Your task to perform on an android device: Open Youtube and go to "Your channel" Image 0: 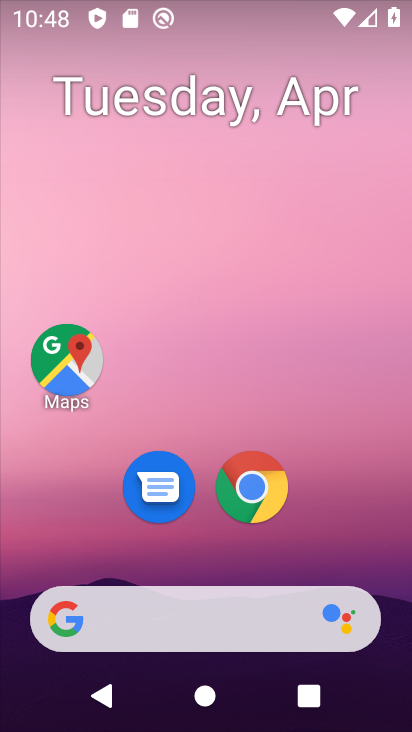
Step 0: drag from (163, 646) to (54, 51)
Your task to perform on an android device: Open Youtube and go to "Your channel" Image 1: 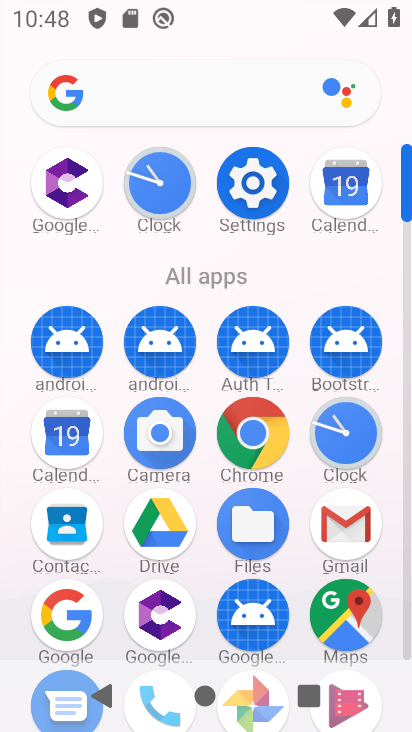
Step 1: drag from (299, 578) to (241, 32)
Your task to perform on an android device: Open Youtube and go to "Your channel" Image 2: 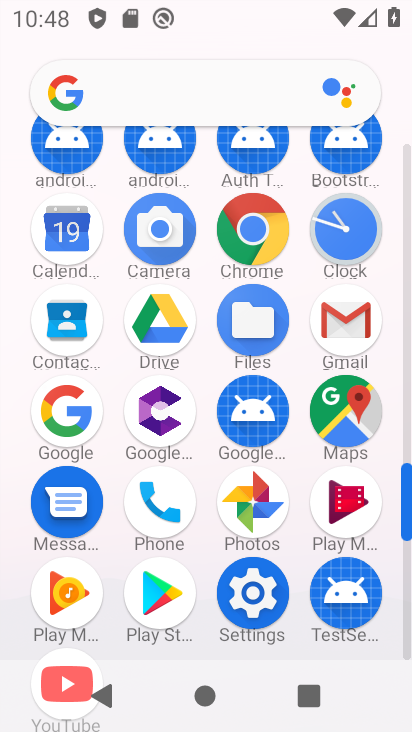
Step 2: drag from (107, 630) to (70, 202)
Your task to perform on an android device: Open Youtube and go to "Your channel" Image 3: 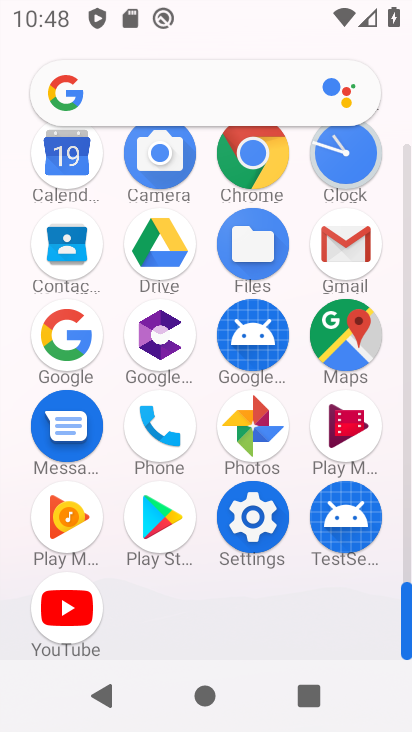
Step 3: click (81, 622)
Your task to perform on an android device: Open Youtube and go to "Your channel" Image 4: 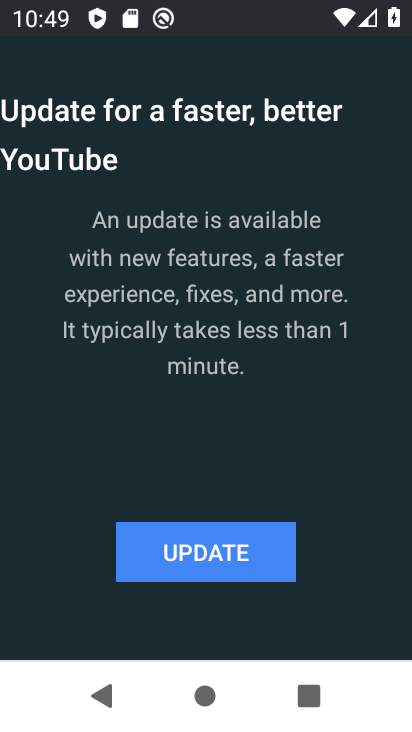
Step 4: click (268, 569)
Your task to perform on an android device: Open Youtube and go to "Your channel" Image 5: 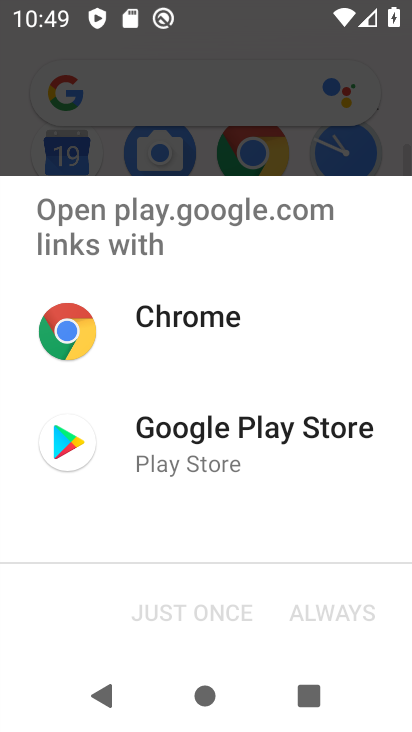
Step 5: click (233, 445)
Your task to perform on an android device: Open Youtube and go to "Your channel" Image 6: 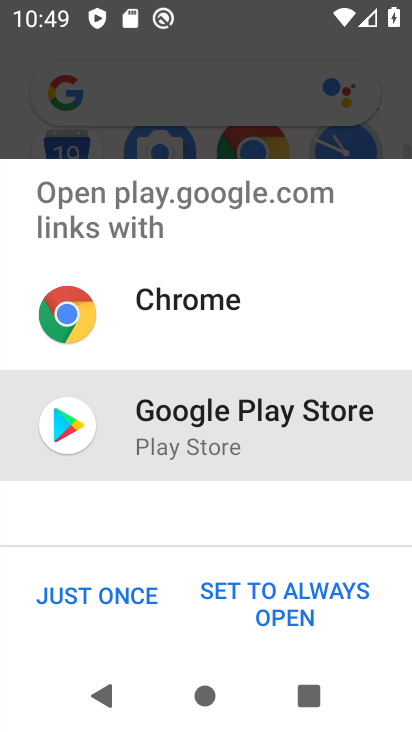
Step 6: click (142, 598)
Your task to perform on an android device: Open Youtube and go to "Your channel" Image 7: 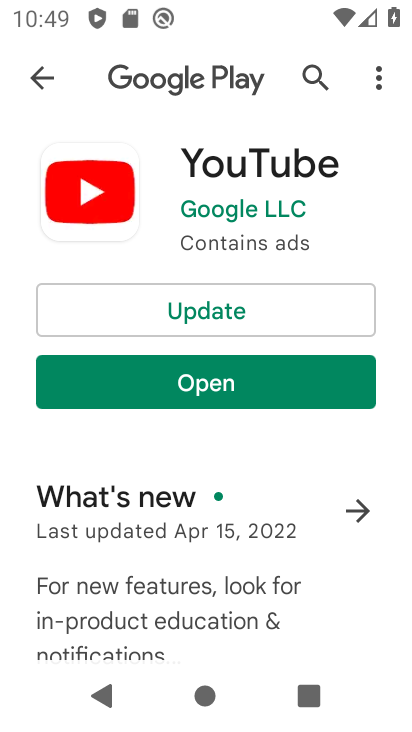
Step 7: click (191, 310)
Your task to perform on an android device: Open Youtube and go to "Your channel" Image 8: 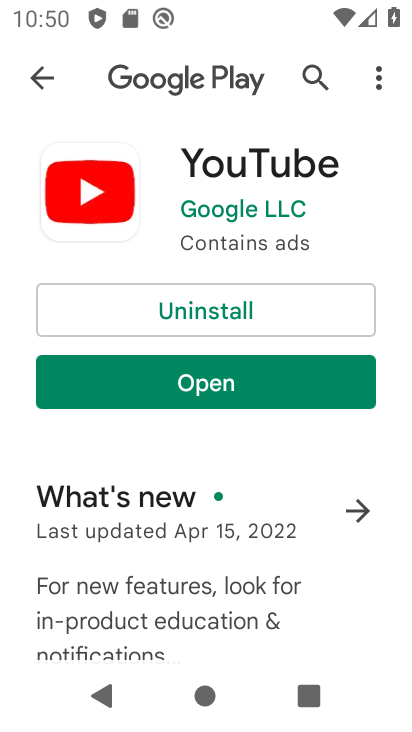
Step 8: click (287, 381)
Your task to perform on an android device: Open Youtube and go to "Your channel" Image 9: 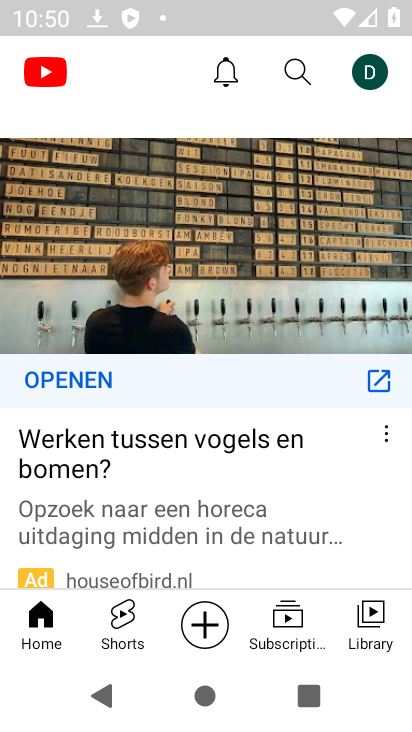
Step 9: drag from (230, 521) to (7, 333)
Your task to perform on an android device: Open Youtube and go to "Your channel" Image 10: 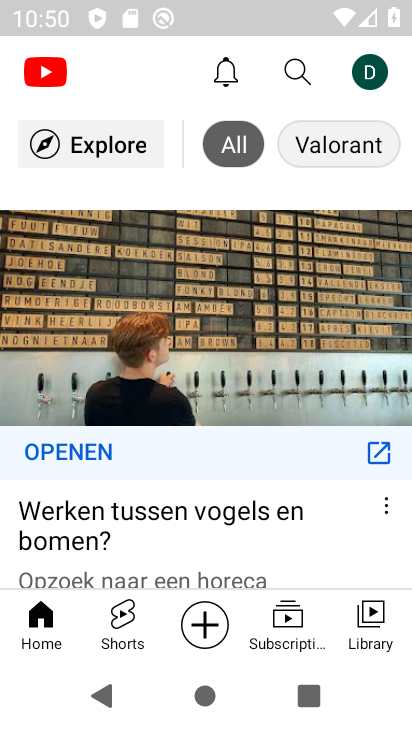
Step 10: click (364, 80)
Your task to perform on an android device: Open Youtube and go to "Your channel" Image 11: 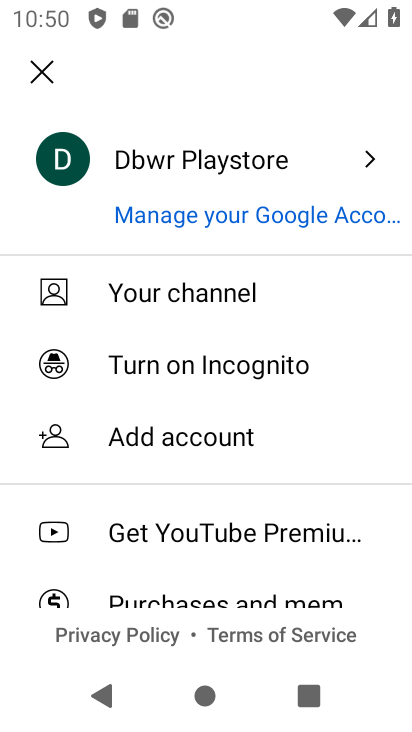
Step 11: click (220, 289)
Your task to perform on an android device: Open Youtube and go to "Your channel" Image 12: 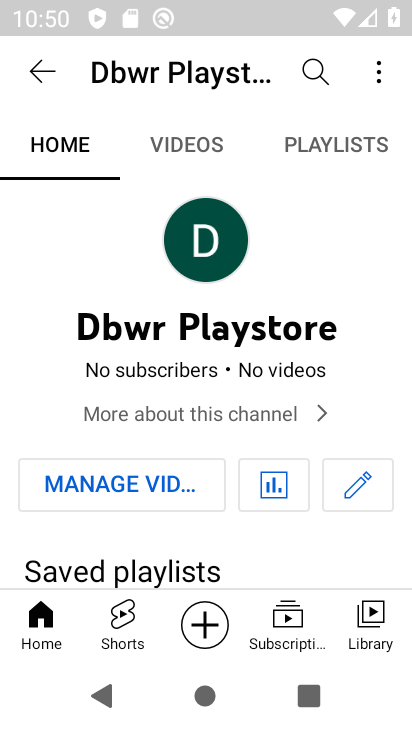
Step 12: task complete